Your task to perform on an android device: Open Google Maps Image 0: 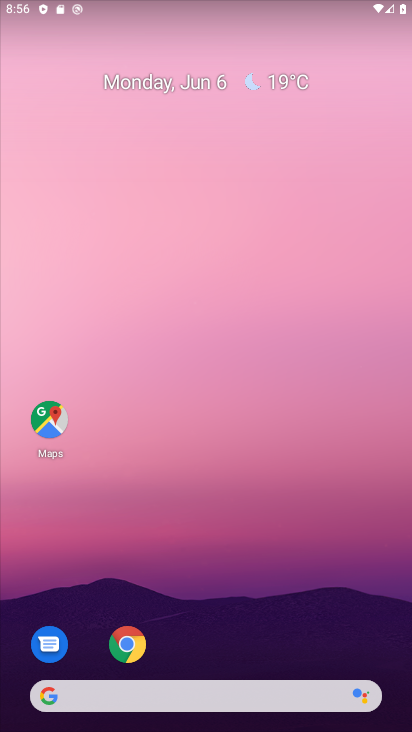
Step 0: click (71, 427)
Your task to perform on an android device: Open Google Maps Image 1: 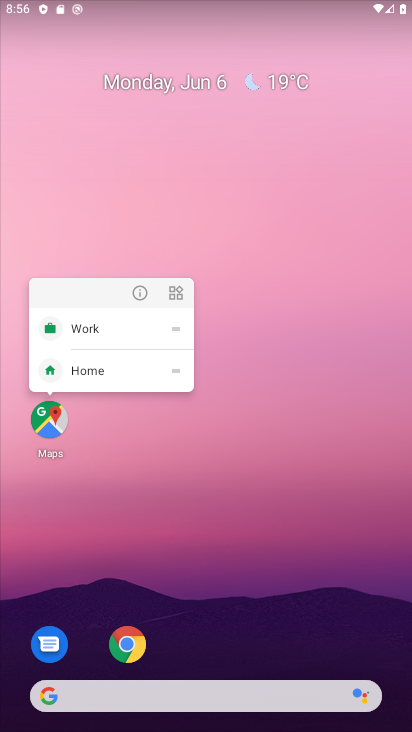
Step 1: click (49, 426)
Your task to perform on an android device: Open Google Maps Image 2: 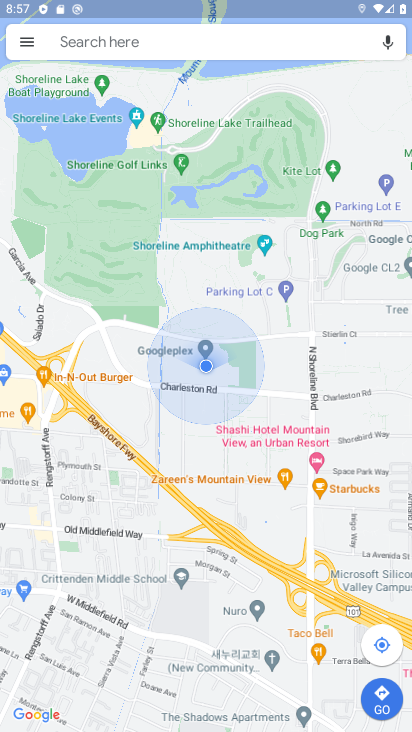
Step 2: task complete